Your task to perform on an android device: turn on javascript in the chrome app Image 0: 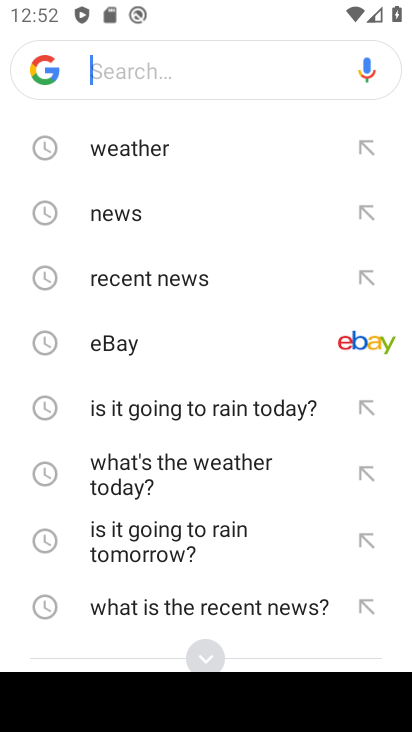
Step 0: press back button
Your task to perform on an android device: turn on javascript in the chrome app Image 1: 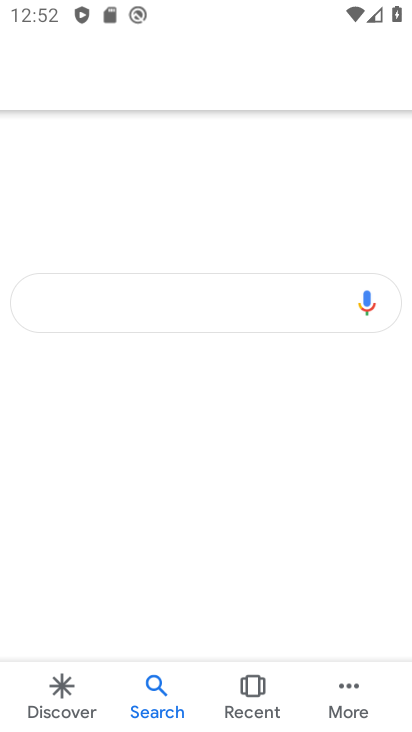
Step 1: drag from (323, 196) to (214, 501)
Your task to perform on an android device: turn on javascript in the chrome app Image 2: 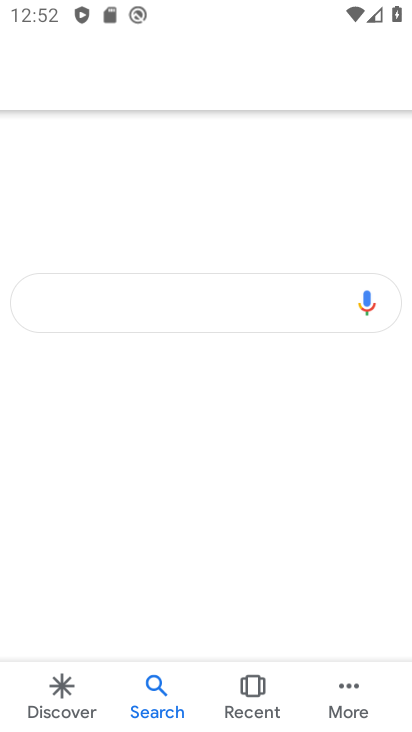
Step 2: press back button
Your task to perform on an android device: turn on javascript in the chrome app Image 3: 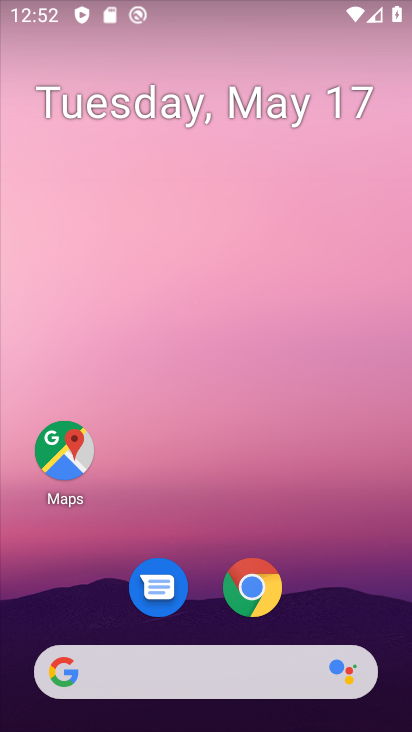
Step 3: click (257, 589)
Your task to perform on an android device: turn on javascript in the chrome app Image 4: 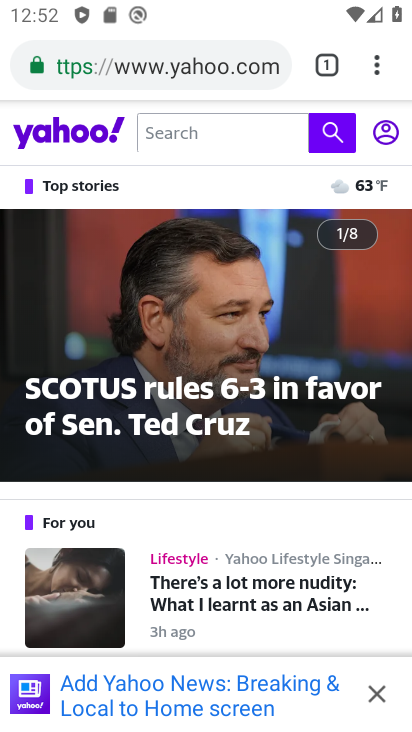
Step 4: click (368, 54)
Your task to perform on an android device: turn on javascript in the chrome app Image 5: 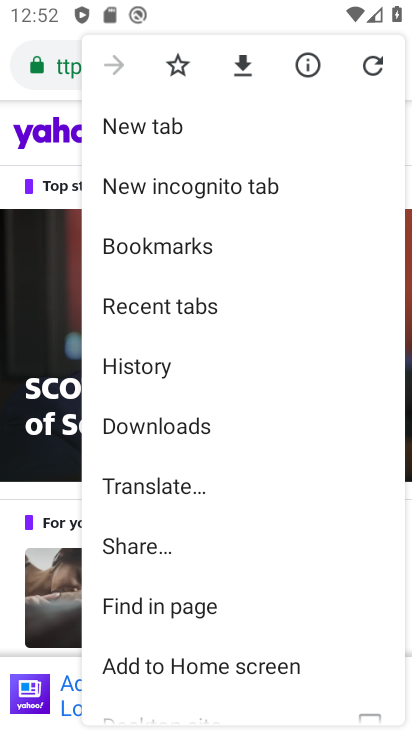
Step 5: drag from (161, 491) to (242, 206)
Your task to perform on an android device: turn on javascript in the chrome app Image 6: 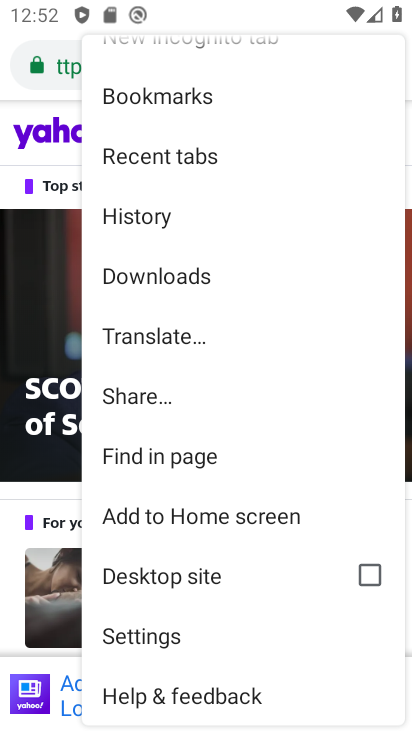
Step 6: click (177, 616)
Your task to perform on an android device: turn on javascript in the chrome app Image 7: 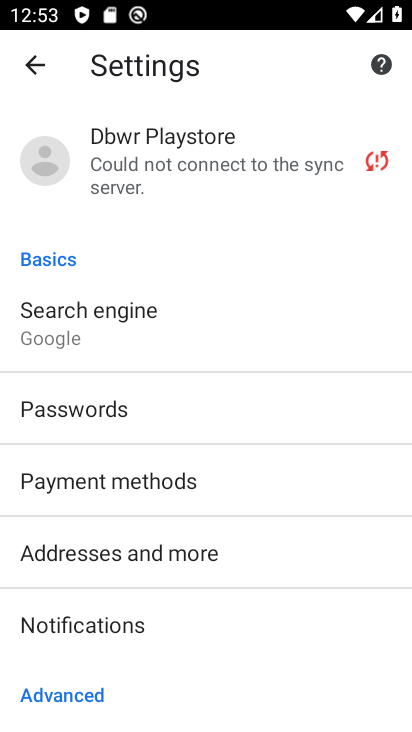
Step 7: drag from (93, 625) to (116, 254)
Your task to perform on an android device: turn on javascript in the chrome app Image 8: 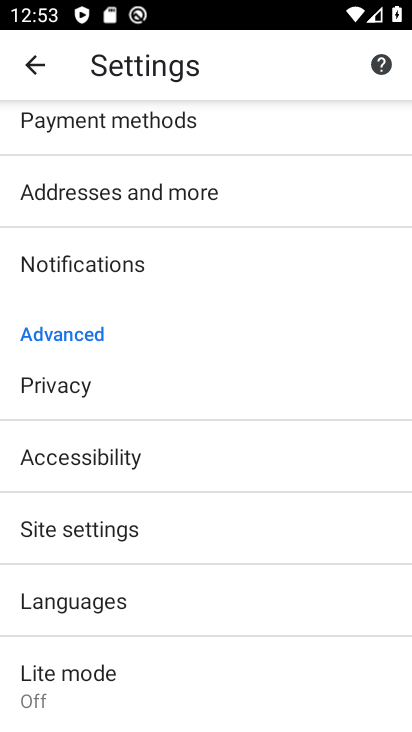
Step 8: click (172, 537)
Your task to perform on an android device: turn on javascript in the chrome app Image 9: 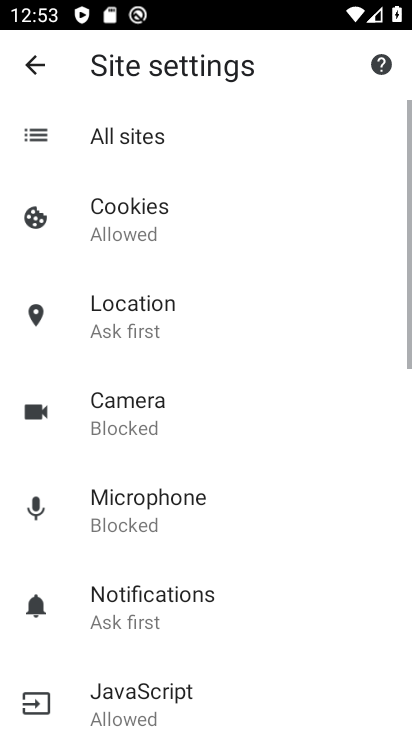
Step 9: task complete